Your task to perform on an android device: Is it going to rain today? Image 0: 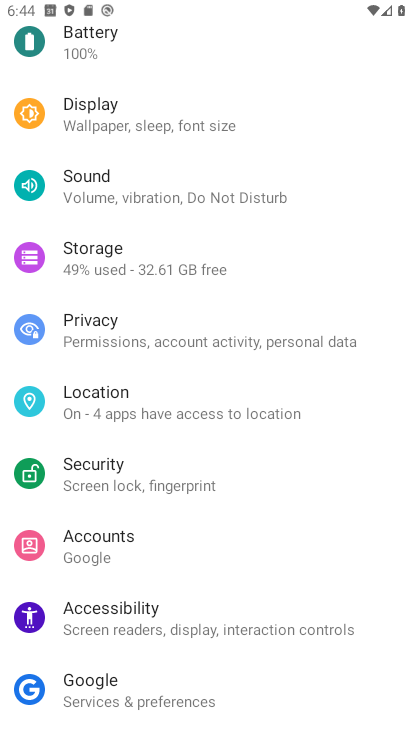
Step 0: press home button
Your task to perform on an android device: Is it going to rain today? Image 1: 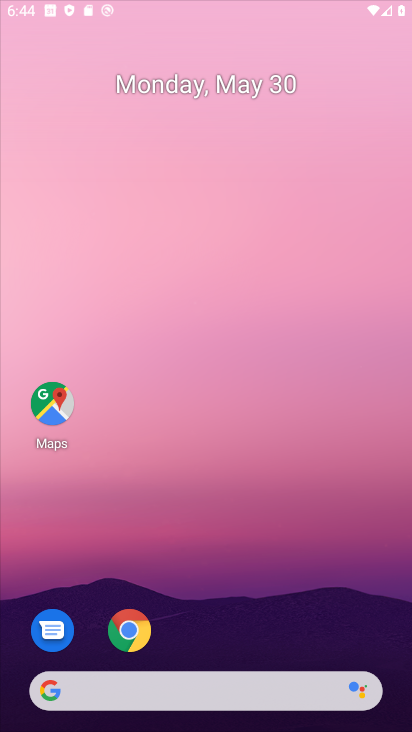
Step 1: drag from (301, 630) to (281, 21)
Your task to perform on an android device: Is it going to rain today? Image 2: 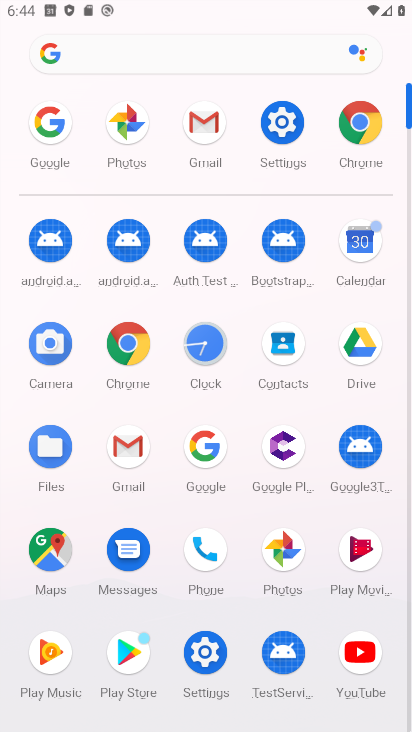
Step 2: click (186, 454)
Your task to perform on an android device: Is it going to rain today? Image 3: 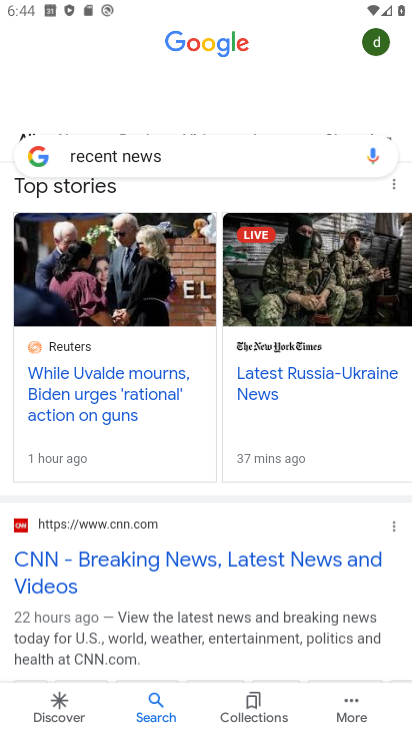
Step 3: press back button
Your task to perform on an android device: Is it going to rain today? Image 4: 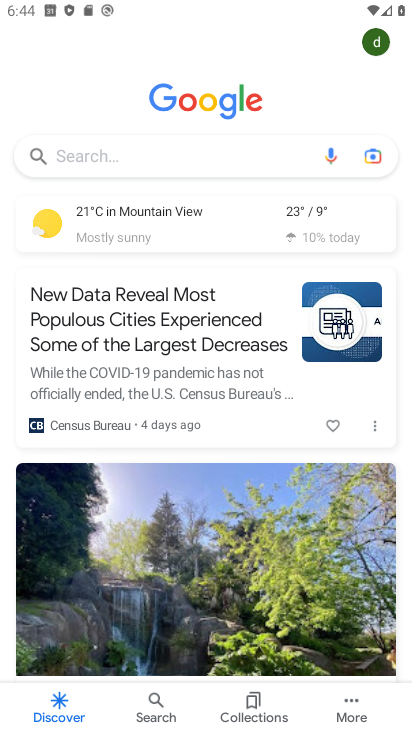
Step 4: click (161, 157)
Your task to perform on an android device: Is it going to rain today? Image 5: 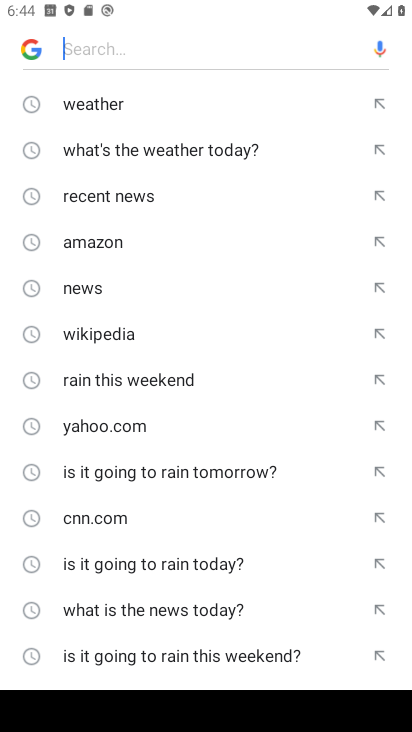
Step 5: click (186, 566)
Your task to perform on an android device: Is it going to rain today? Image 6: 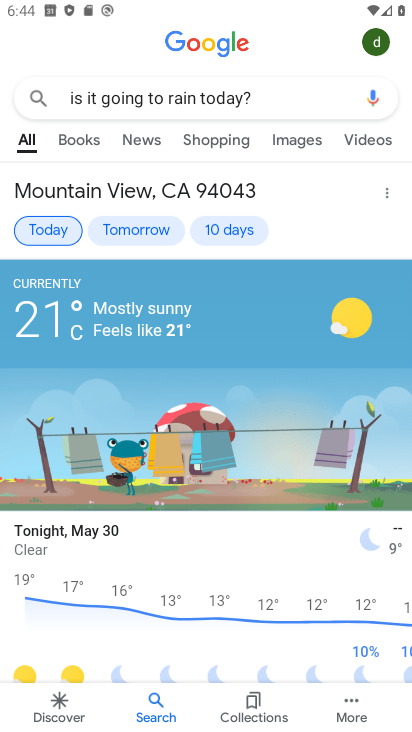
Step 6: task complete